Your task to perform on an android device: toggle improve location accuracy Image 0: 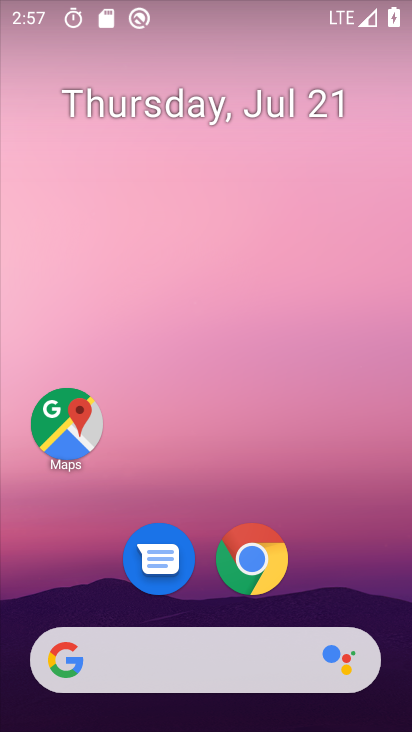
Step 0: drag from (366, 576) to (366, 82)
Your task to perform on an android device: toggle improve location accuracy Image 1: 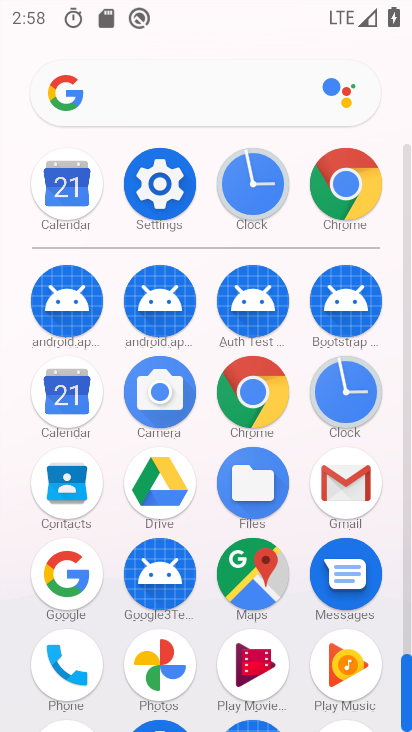
Step 1: click (175, 186)
Your task to perform on an android device: toggle improve location accuracy Image 2: 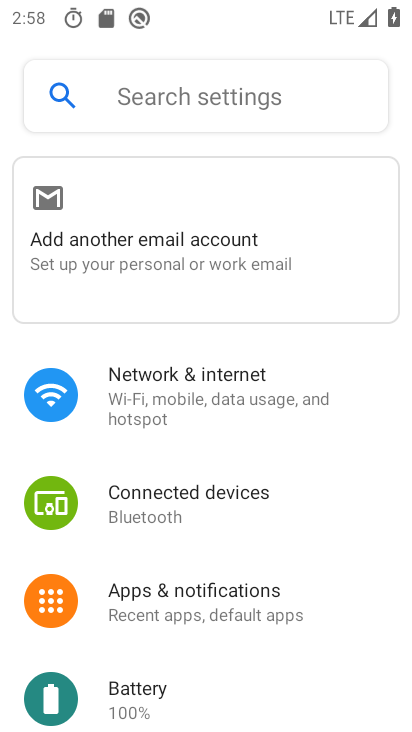
Step 2: drag from (345, 544) to (355, 470)
Your task to perform on an android device: toggle improve location accuracy Image 3: 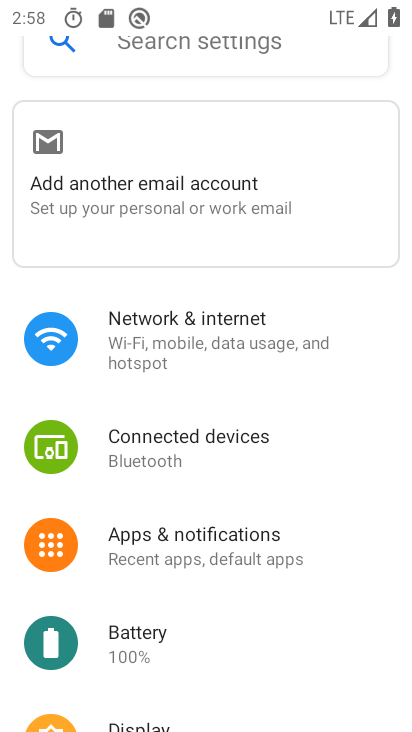
Step 3: drag from (327, 562) to (327, 488)
Your task to perform on an android device: toggle improve location accuracy Image 4: 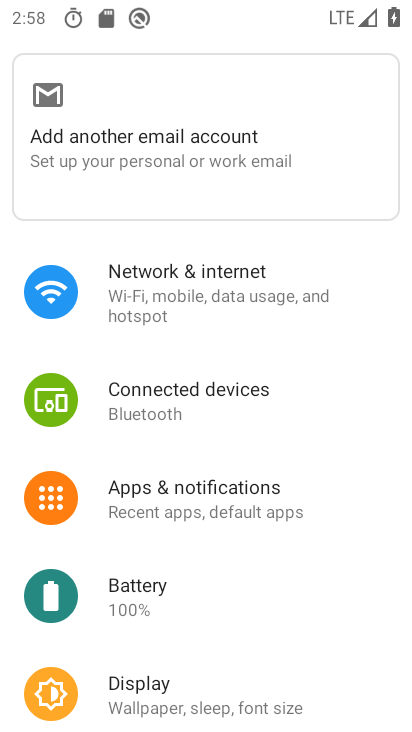
Step 4: drag from (345, 566) to (352, 464)
Your task to perform on an android device: toggle improve location accuracy Image 5: 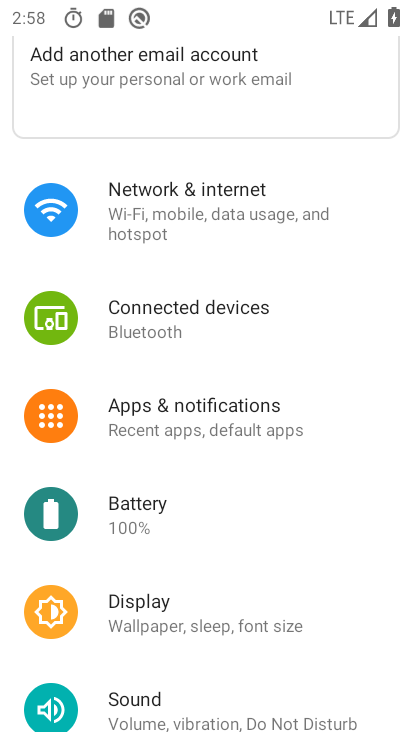
Step 5: drag from (337, 530) to (341, 459)
Your task to perform on an android device: toggle improve location accuracy Image 6: 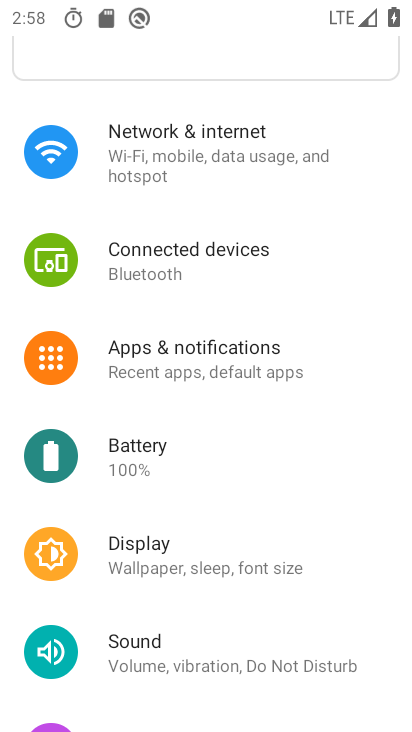
Step 6: drag from (331, 566) to (336, 469)
Your task to perform on an android device: toggle improve location accuracy Image 7: 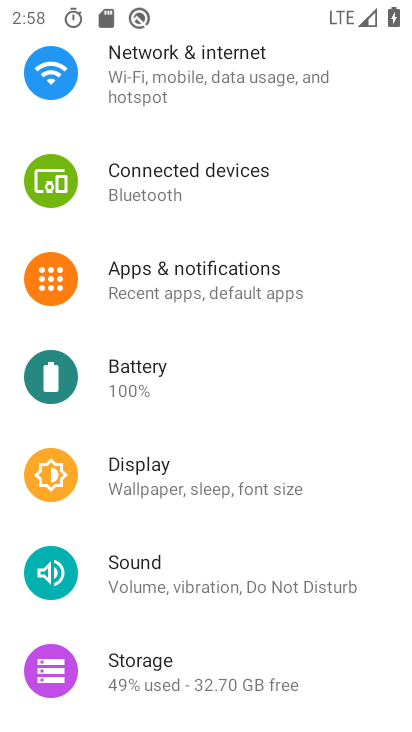
Step 7: drag from (341, 623) to (352, 531)
Your task to perform on an android device: toggle improve location accuracy Image 8: 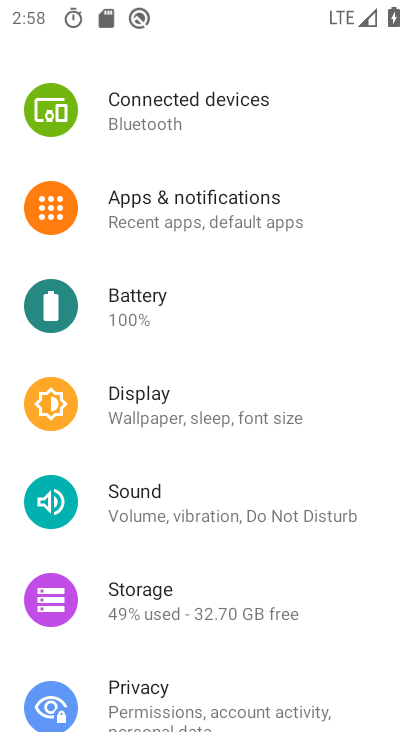
Step 8: drag from (342, 594) to (345, 509)
Your task to perform on an android device: toggle improve location accuracy Image 9: 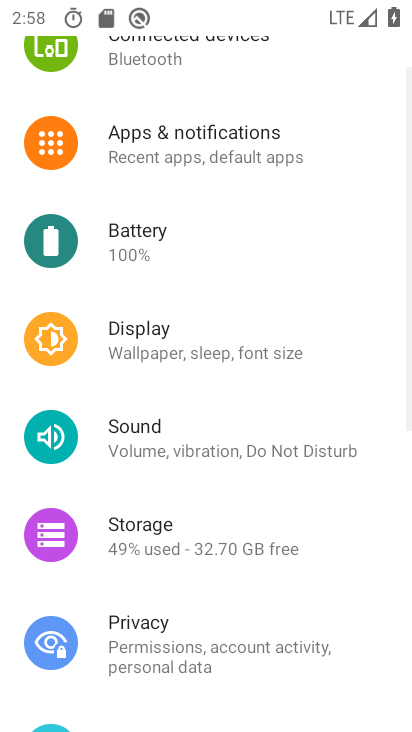
Step 9: drag from (347, 586) to (351, 464)
Your task to perform on an android device: toggle improve location accuracy Image 10: 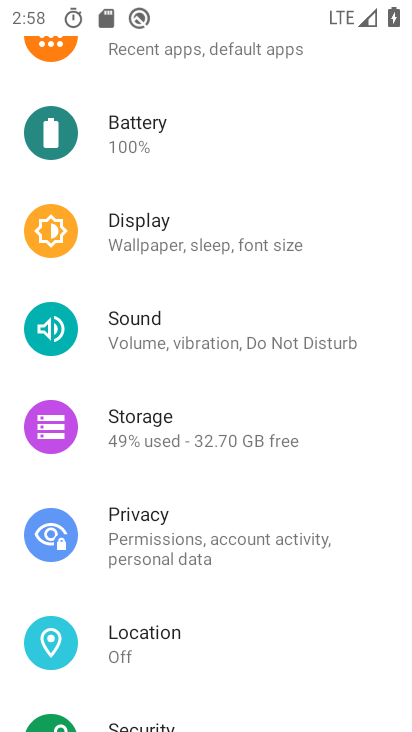
Step 10: drag from (371, 605) to (373, 447)
Your task to perform on an android device: toggle improve location accuracy Image 11: 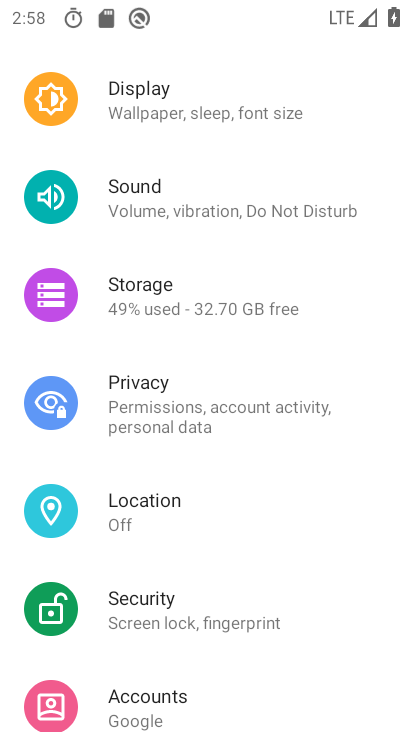
Step 11: drag from (350, 545) to (349, 421)
Your task to perform on an android device: toggle improve location accuracy Image 12: 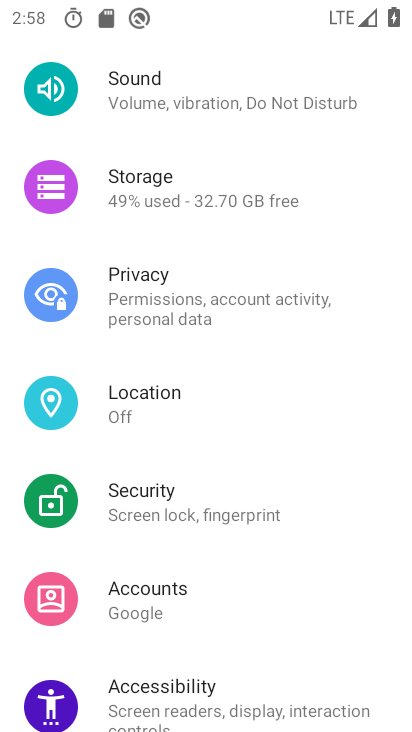
Step 12: drag from (349, 546) to (349, 467)
Your task to perform on an android device: toggle improve location accuracy Image 13: 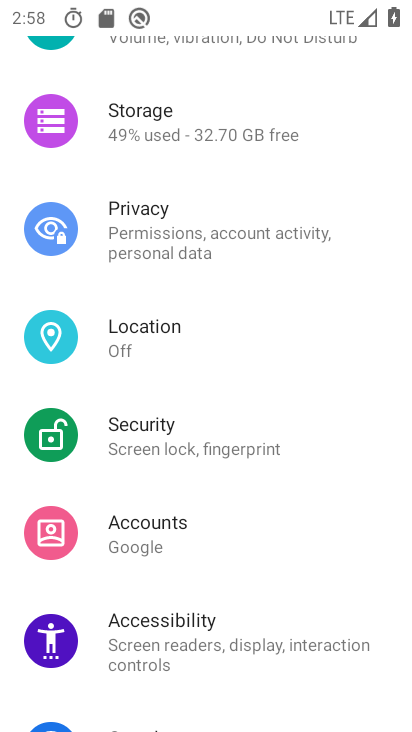
Step 13: click (249, 364)
Your task to perform on an android device: toggle improve location accuracy Image 14: 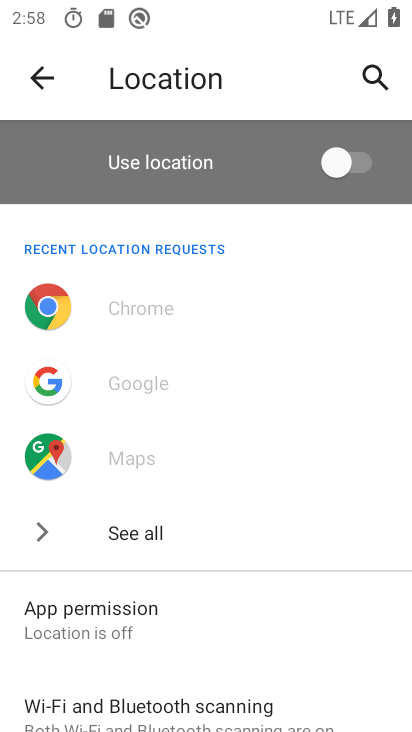
Step 14: drag from (286, 575) to (302, 474)
Your task to perform on an android device: toggle improve location accuracy Image 15: 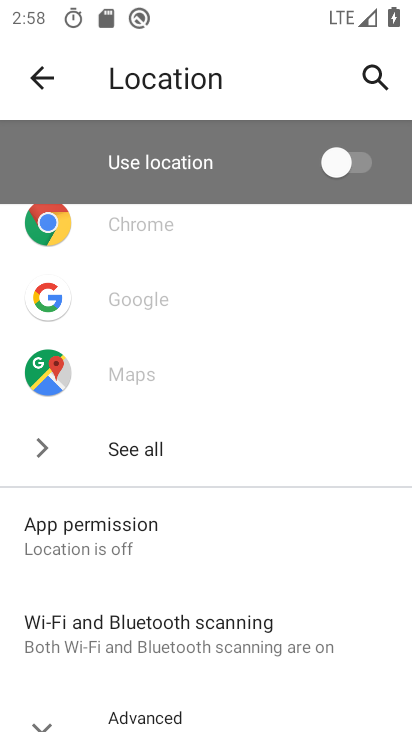
Step 15: drag from (315, 598) to (317, 464)
Your task to perform on an android device: toggle improve location accuracy Image 16: 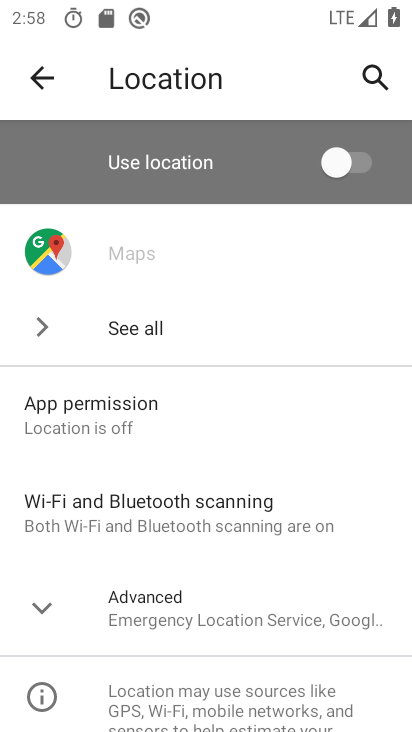
Step 16: drag from (319, 582) to (328, 454)
Your task to perform on an android device: toggle improve location accuracy Image 17: 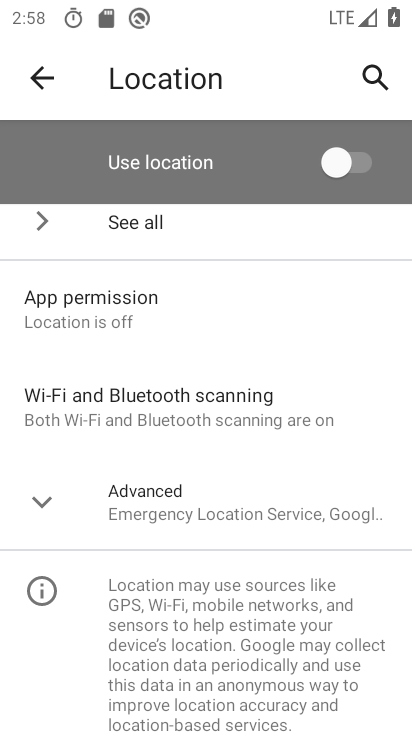
Step 17: drag from (327, 608) to (333, 503)
Your task to perform on an android device: toggle improve location accuracy Image 18: 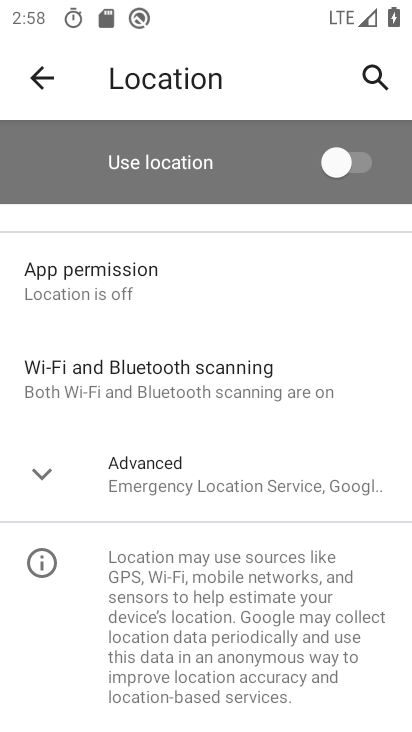
Step 18: click (325, 489)
Your task to perform on an android device: toggle improve location accuracy Image 19: 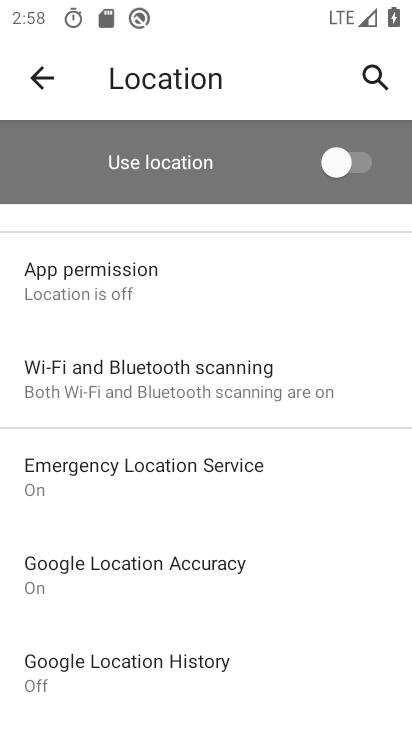
Step 19: drag from (335, 574) to (338, 484)
Your task to perform on an android device: toggle improve location accuracy Image 20: 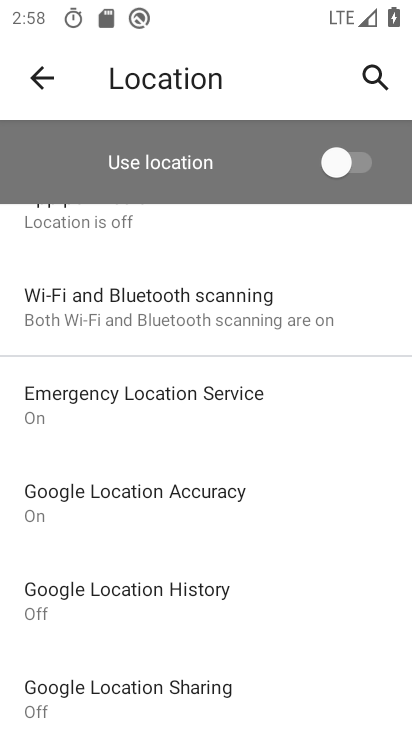
Step 20: drag from (324, 569) to (324, 474)
Your task to perform on an android device: toggle improve location accuracy Image 21: 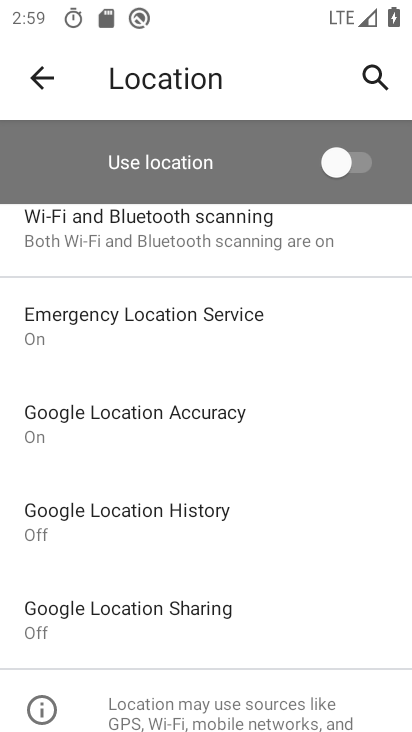
Step 21: click (281, 431)
Your task to perform on an android device: toggle improve location accuracy Image 22: 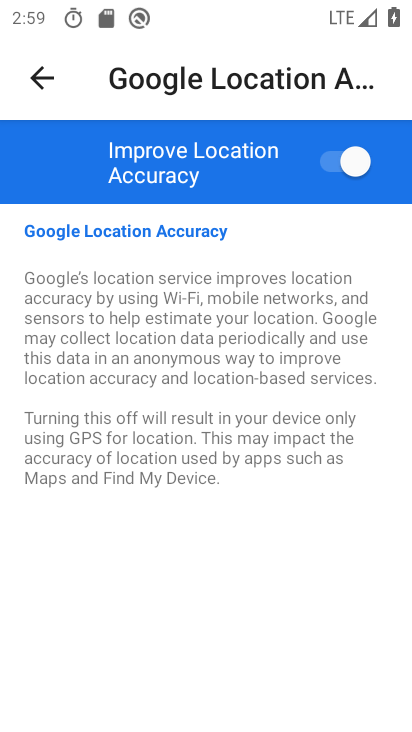
Step 22: click (362, 161)
Your task to perform on an android device: toggle improve location accuracy Image 23: 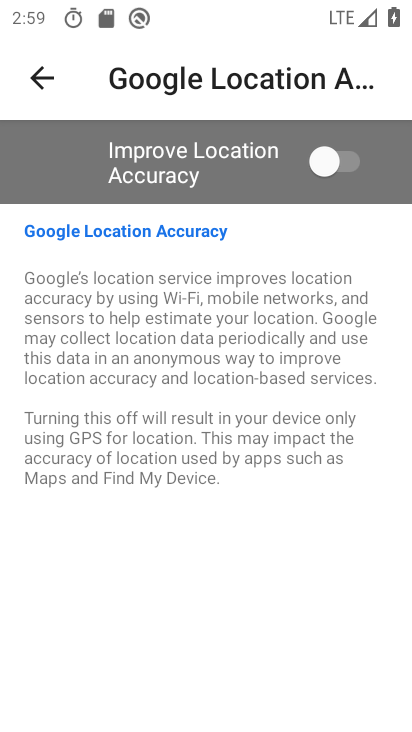
Step 23: task complete